Your task to perform on an android device: read, delete, or share a saved page in the chrome app Image 0: 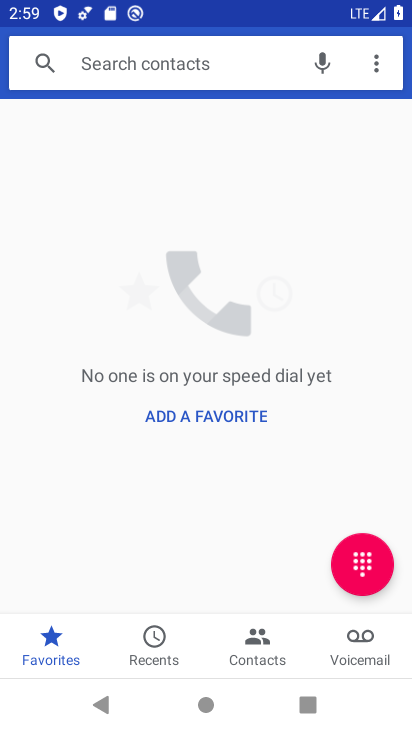
Step 0: press home button
Your task to perform on an android device: read, delete, or share a saved page in the chrome app Image 1: 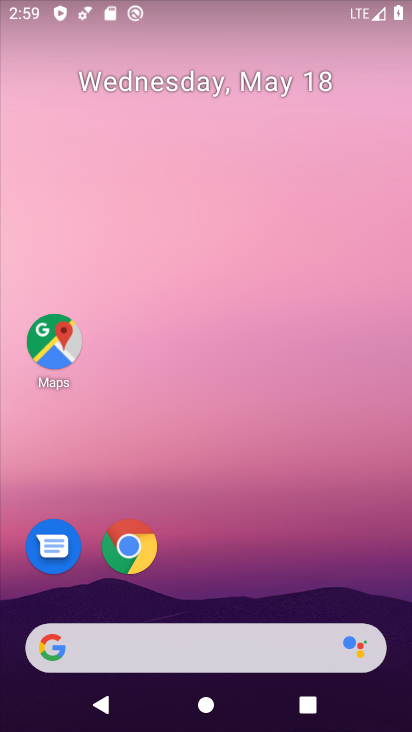
Step 1: click (128, 554)
Your task to perform on an android device: read, delete, or share a saved page in the chrome app Image 2: 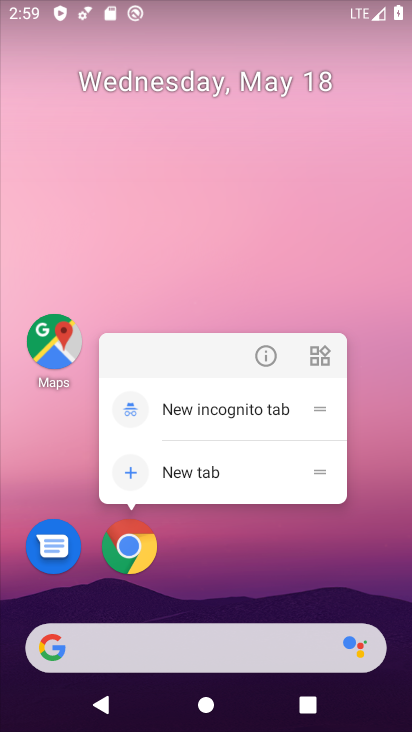
Step 2: click (128, 557)
Your task to perform on an android device: read, delete, or share a saved page in the chrome app Image 3: 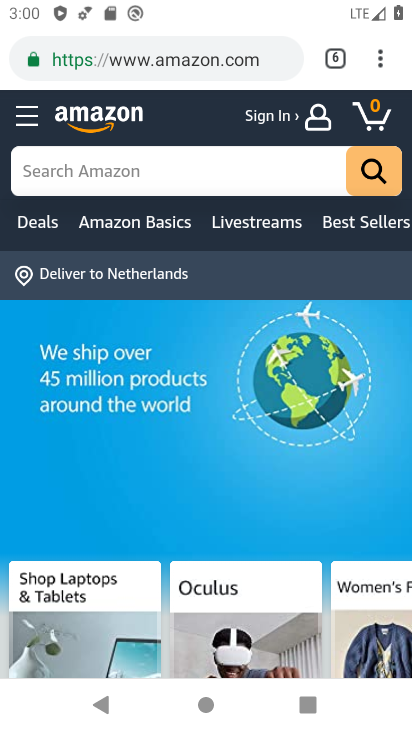
Step 3: click (382, 64)
Your task to perform on an android device: read, delete, or share a saved page in the chrome app Image 4: 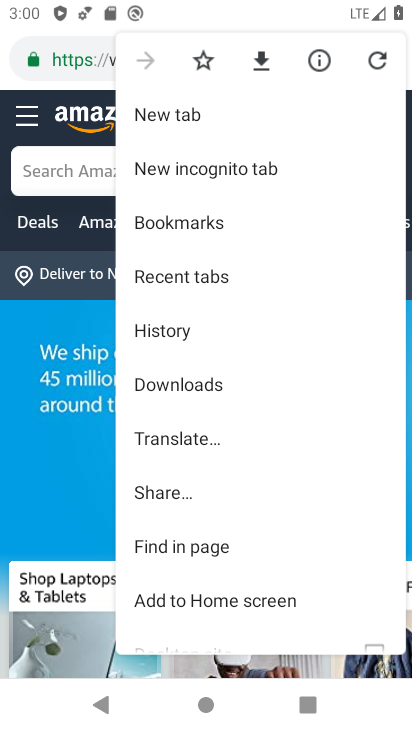
Step 4: click (169, 387)
Your task to perform on an android device: read, delete, or share a saved page in the chrome app Image 5: 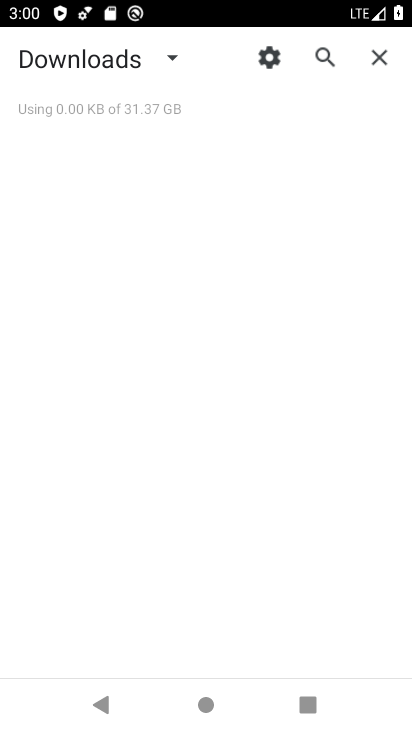
Step 5: click (172, 58)
Your task to perform on an android device: read, delete, or share a saved page in the chrome app Image 6: 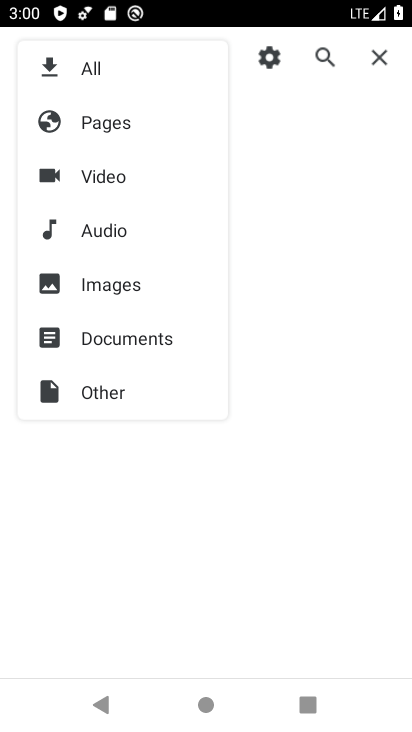
Step 6: click (98, 124)
Your task to perform on an android device: read, delete, or share a saved page in the chrome app Image 7: 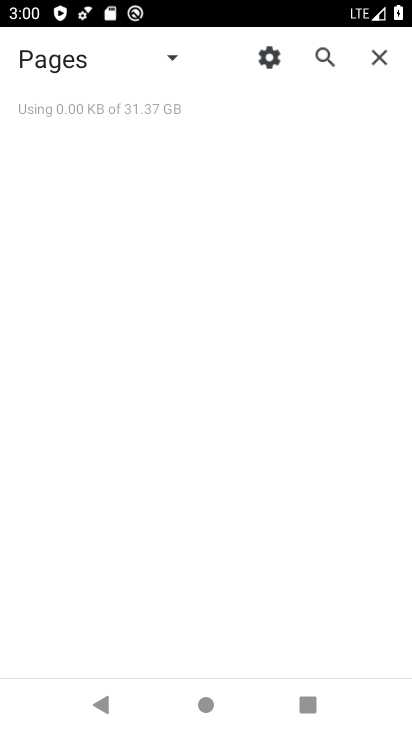
Step 7: task complete